Your task to perform on an android device: Show me popular videos on Youtube Image 0: 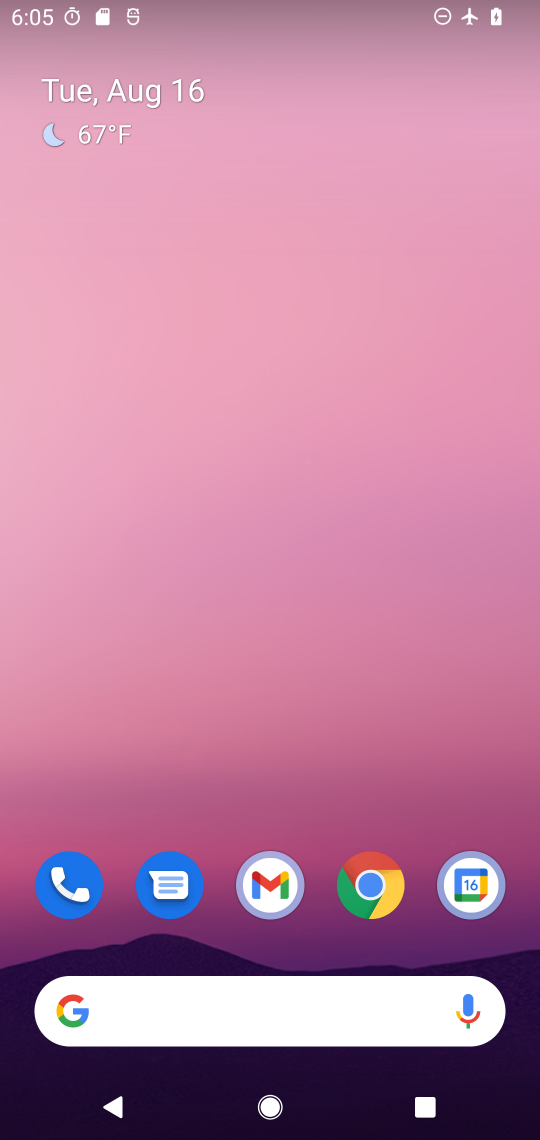
Step 0: drag from (533, 950) to (350, 337)
Your task to perform on an android device: Show me popular videos on Youtube Image 1: 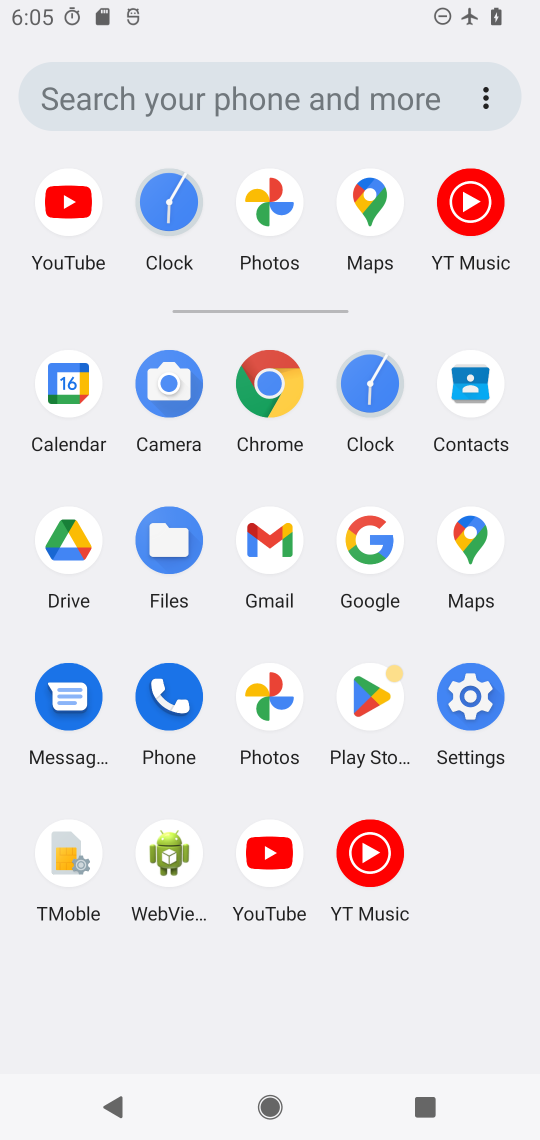
Step 1: click (248, 842)
Your task to perform on an android device: Show me popular videos on Youtube Image 2: 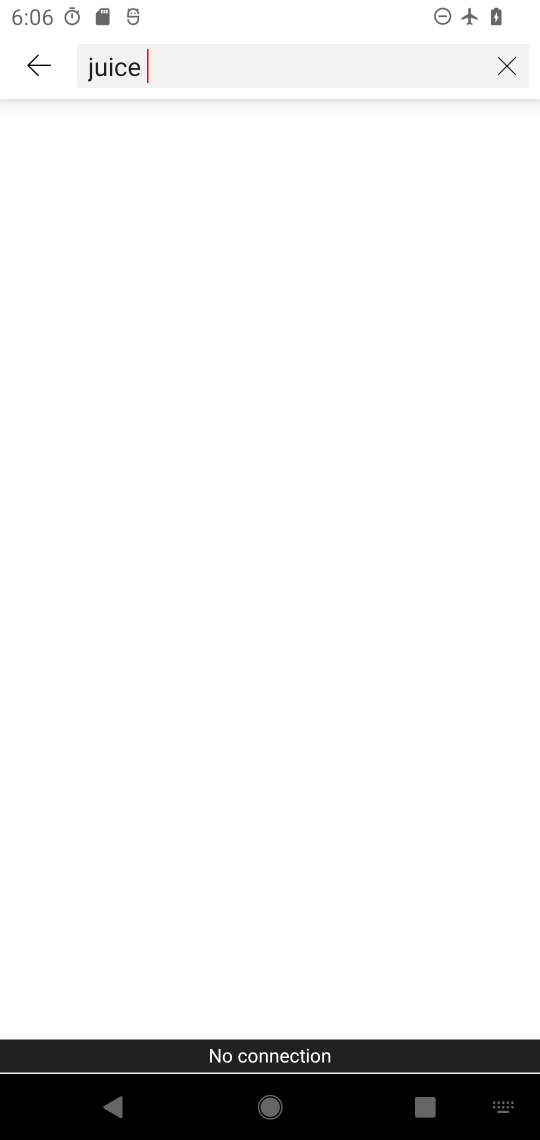
Step 2: task complete